Your task to perform on an android device: stop showing notifications on the lock screen Image 0: 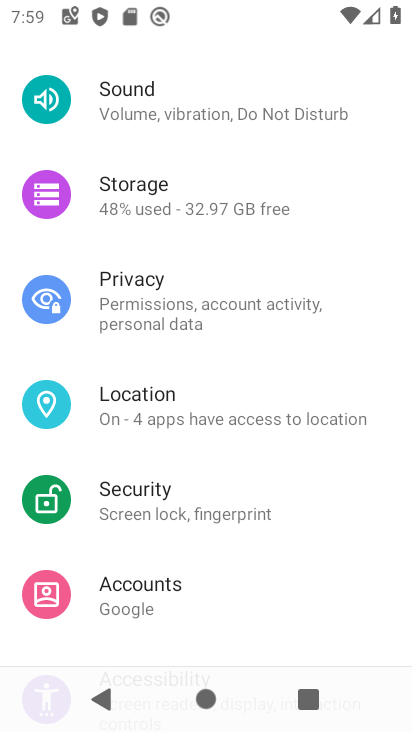
Step 0: drag from (190, 227) to (206, 545)
Your task to perform on an android device: stop showing notifications on the lock screen Image 1: 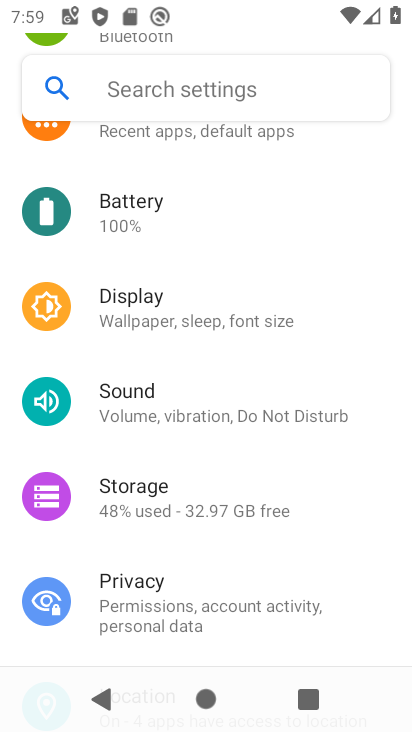
Step 1: drag from (173, 236) to (190, 540)
Your task to perform on an android device: stop showing notifications on the lock screen Image 2: 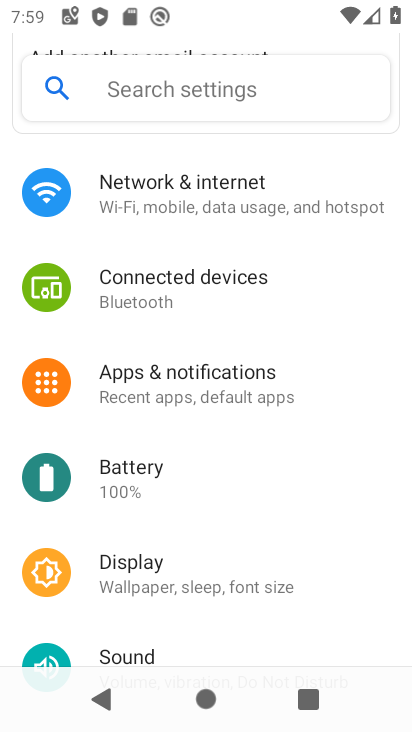
Step 2: click (167, 405)
Your task to perform on an android device: stop showing notifications on the lock screen Image 3: 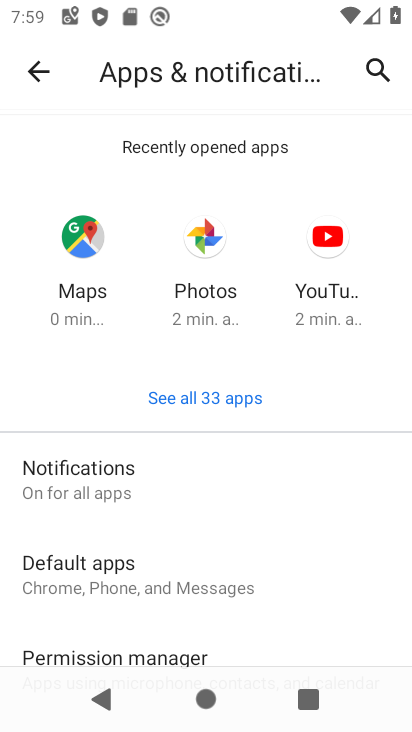
Step 3: click (188, 470)
Your task to perform on an android device: stop showing notifications on the lock screen Image 4: 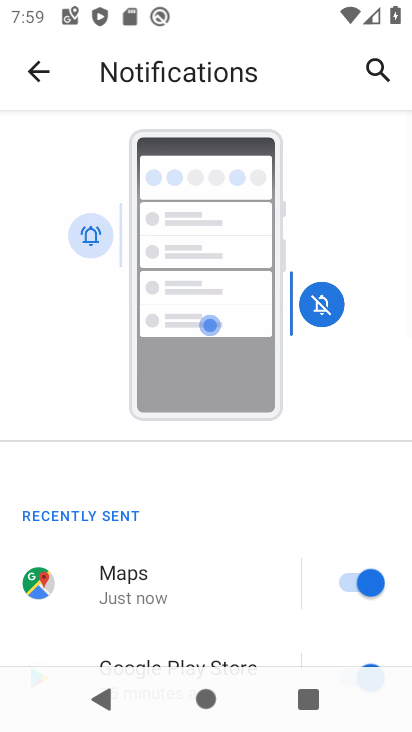
Step 4: drag from (232, 570) to (254, 261)
Your task to perform on an android device: stop showing notifications on the lock screen Image 5: 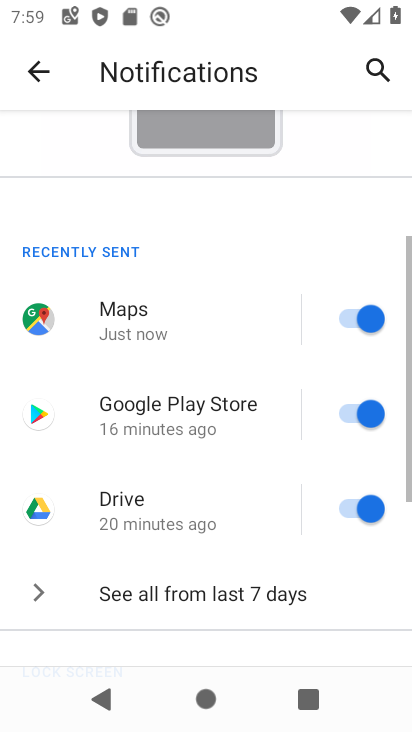
Step 5: drag from (258, 578) to (251, 286)
Your task to perform on an android device: stop showing notifications on the lock screen Image 6: 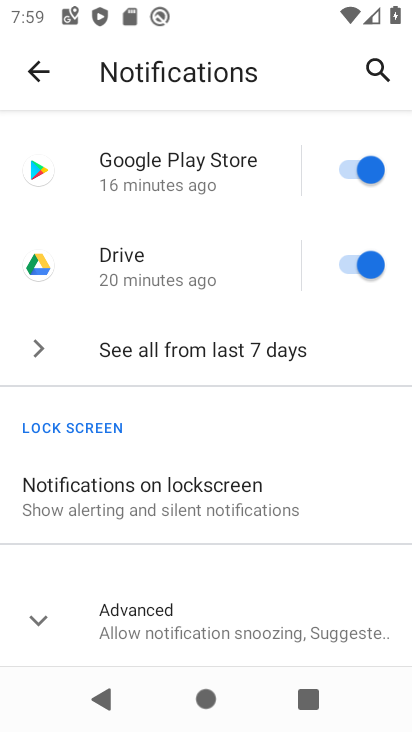
Step 6: click (247, 499)
Your task to perform on an android device: stop showing notifications on the lock screen Image 7: 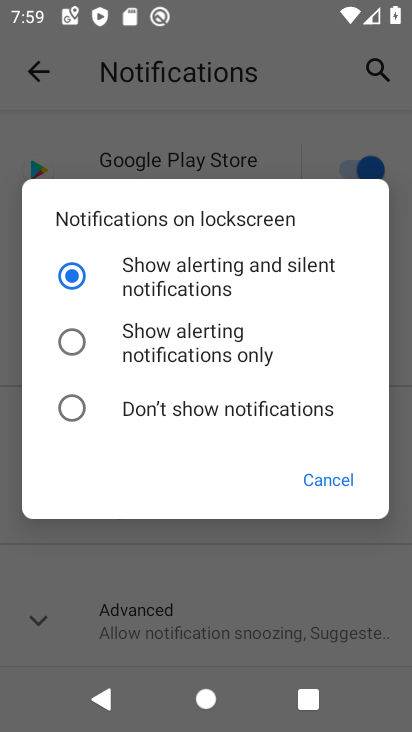
Step 7: click (176, 405)
Your task to perform on an android device: stop showing notifications on the lock screen Image 8: 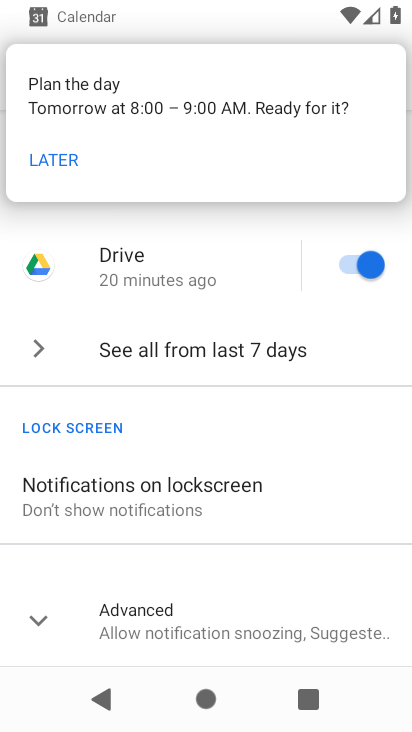
Step 8: task complete